Your task to perform on an android device: Go to location settings Image 0: 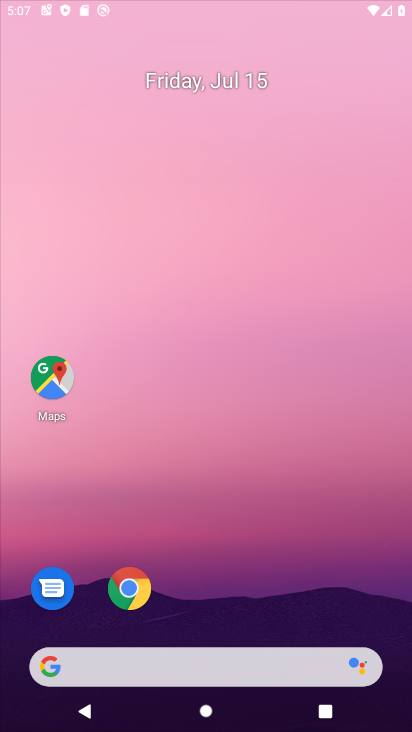
Step 0: click (348, 68)
Your task to perform on an android device: Go to location settings Image 1: 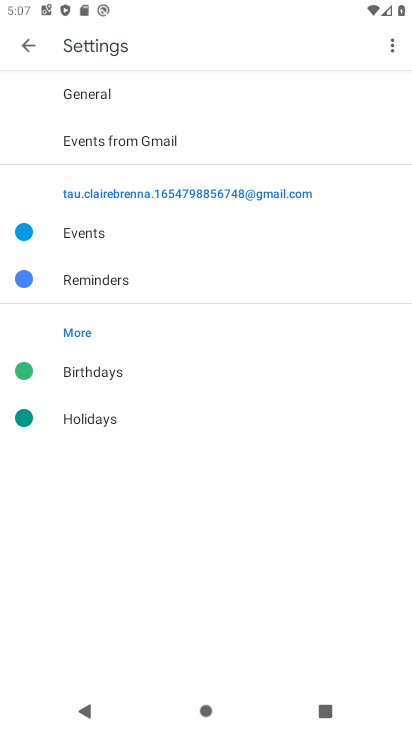
Step 1: press home button
Your task to perform on an android device: Go to location settings Image 2: 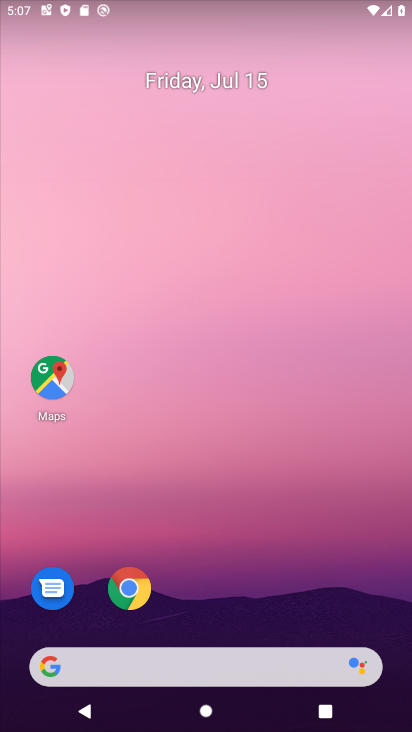
Step 2: drag from (236, 667) to (271, 5)
Your task to perform on an android device: Go to location settings Image 3: 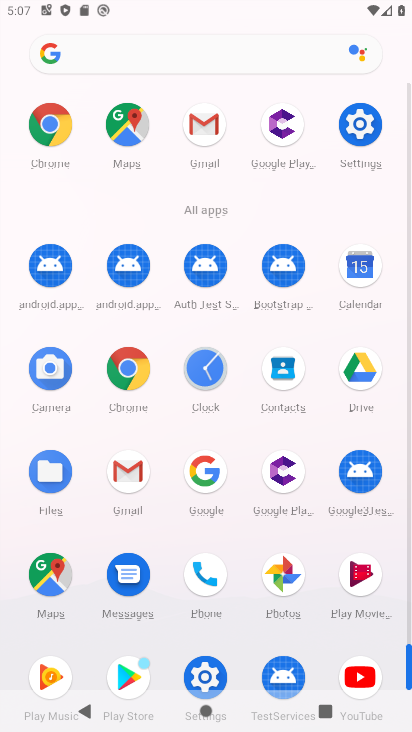
Step 3: click (361, 124)
Your task to perform on an android device: Go to location settings Image 4: 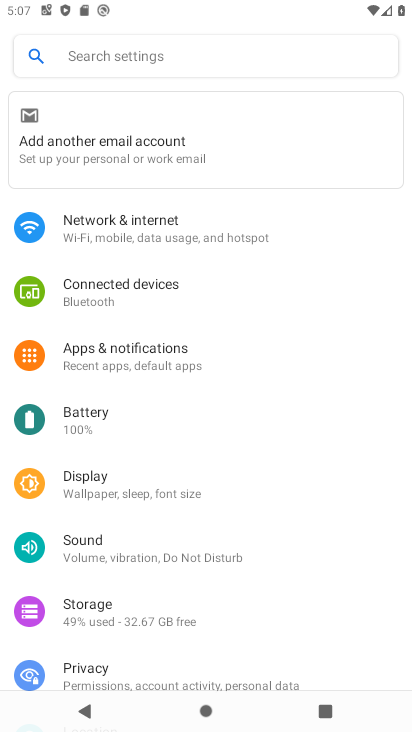
Step 4: drag from (170, 583) to (224, 209)
Your task to perform on an android device: Go to location settings Image 5: 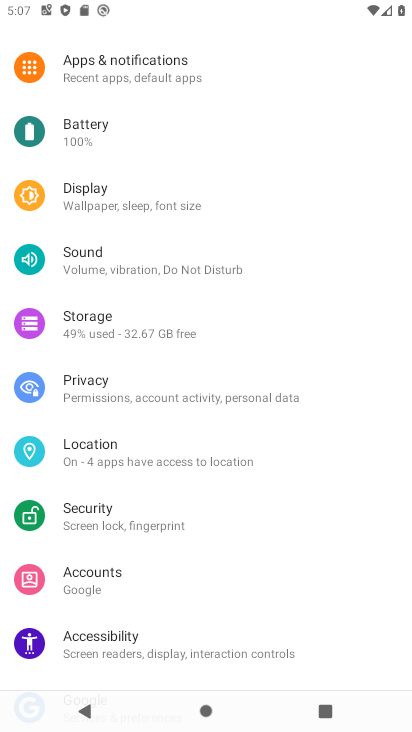
Step 5: click (172, 457)
Your task to perform on an android device: Go to location settings Image 6: 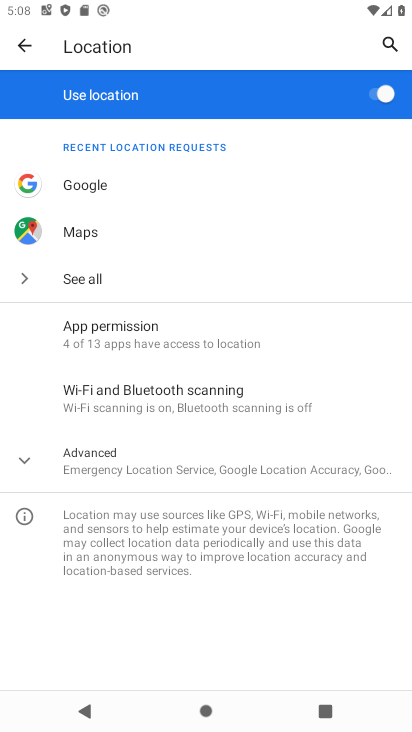
Step 6: task complete